Your task to perform on an android device: toggle improve location accuracy Image 0: 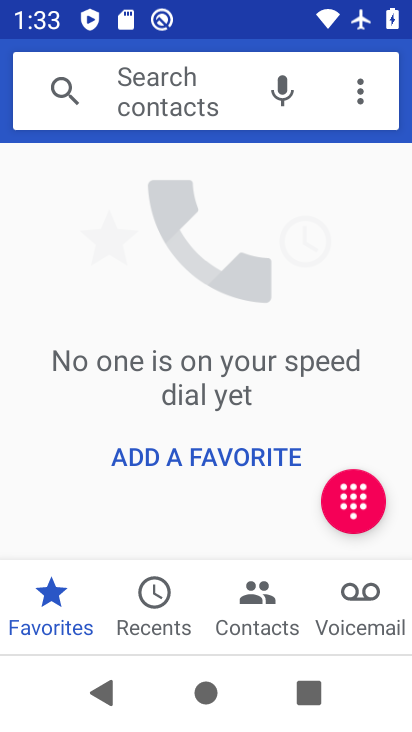
Step 0: press home button
Your task to perform on an android device: toggle improve location accuracy Image 1: 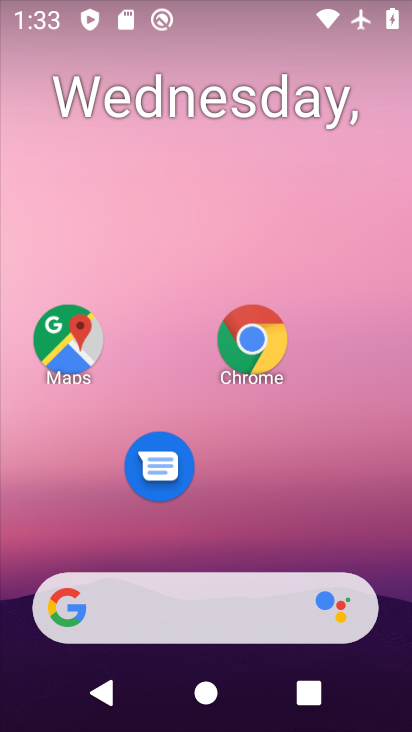
Step 1: drag from (149, 620) to (261, 200)
Your task to perform on an android device: toggle improve location accuracy Image 2: 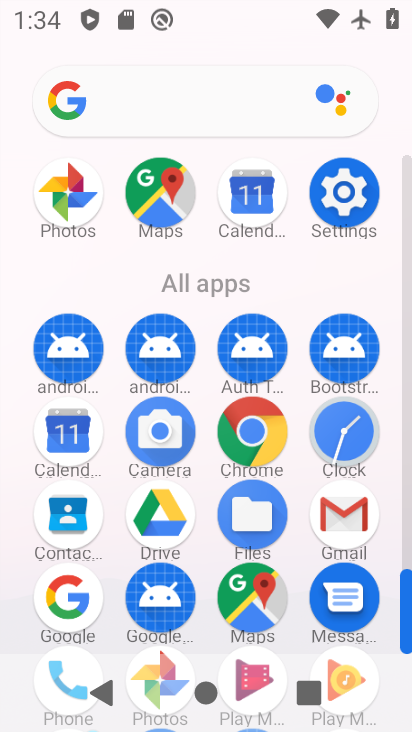
Step 2: click (341, 199)
Your task to perform on an android device: toggle improve location accuracy Image 3: 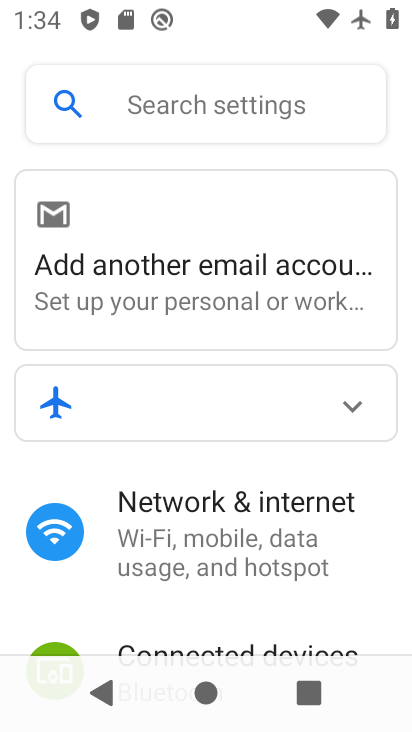
Step 3: drag from (203, 625) to (359, 156)
Your task to perform on an android device: toggle improve location accuracy Image 4: 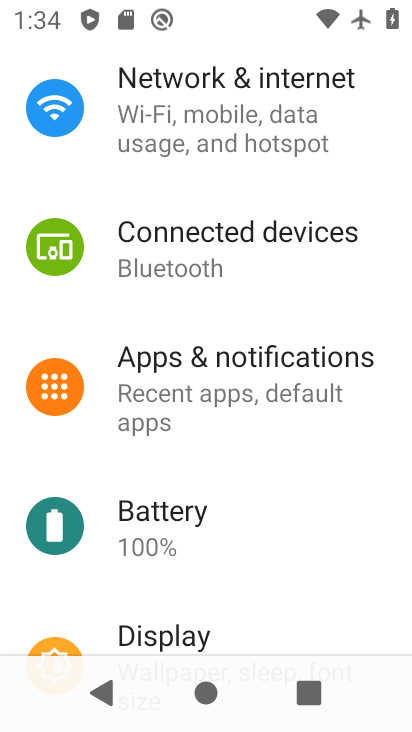
Step 4: drag from (235, 594) to (375, 57)
Your task to perform on an android device: toggle improve location accuracy Image 5: 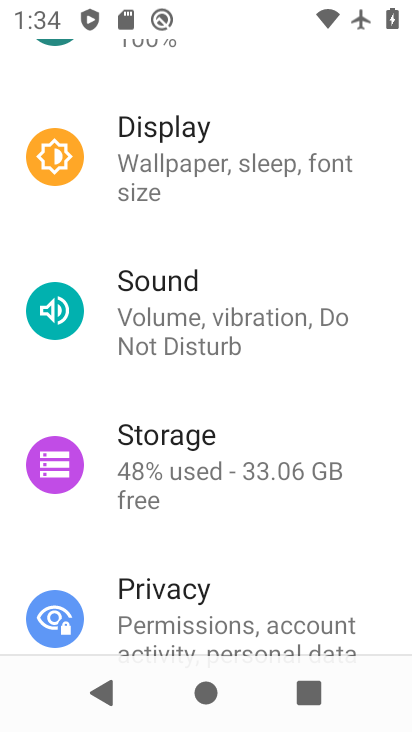
Step 5: drag from (261, 490) to (357, 113)
Your task to perform on an android device: toggle improve location accuracy Image 6: 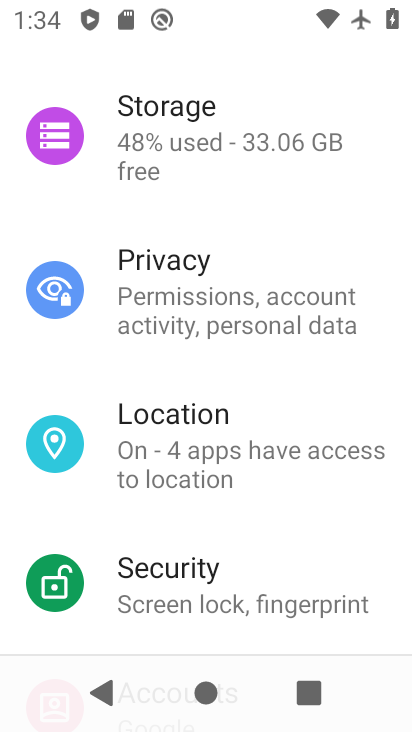
Step 6: click (203, 434)
Your task to perform on an android device: toggle improve location accuracy Image 7: 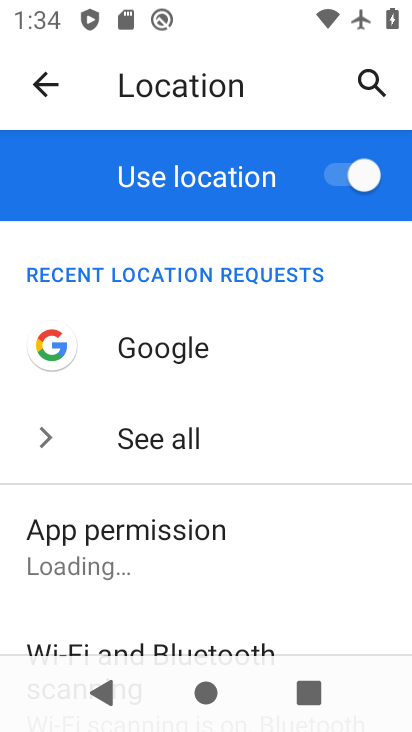
Step 7: drag from (252, 579) to (365, 211)
Your task to perform on an android device: toggle improve location accuracy Image 8: 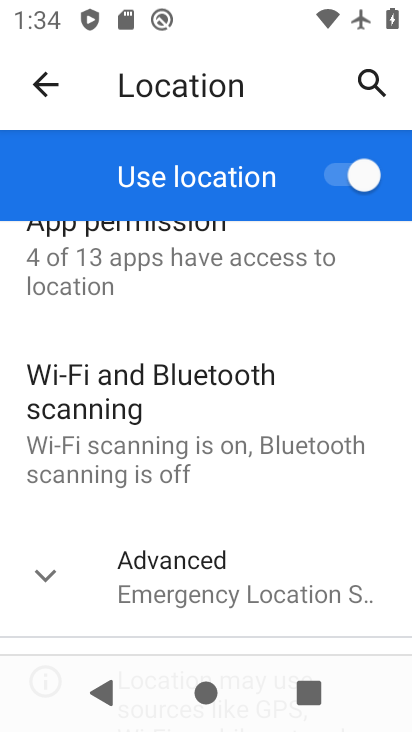
Step 8: drag from (255, 527) to (348, 102)
Your task to perform on an android device: toggle improve location accuracy Image 9: 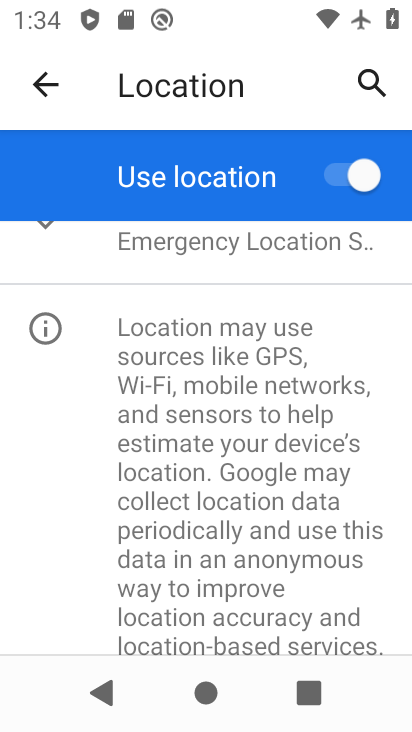
Step 9: drag from (220, 335) to (169, 517)
Your task to perform on an android device: toggle improve location accuracy Image 10: 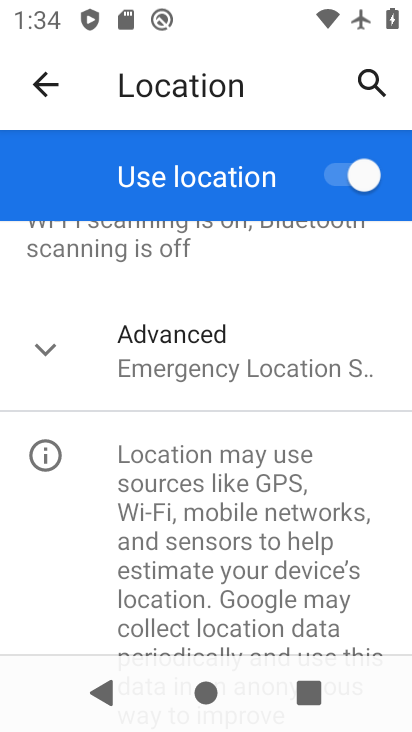
Step 10: click (162, 344)
Your task to perform on an android device: toggle improve location accuracy Image 11: 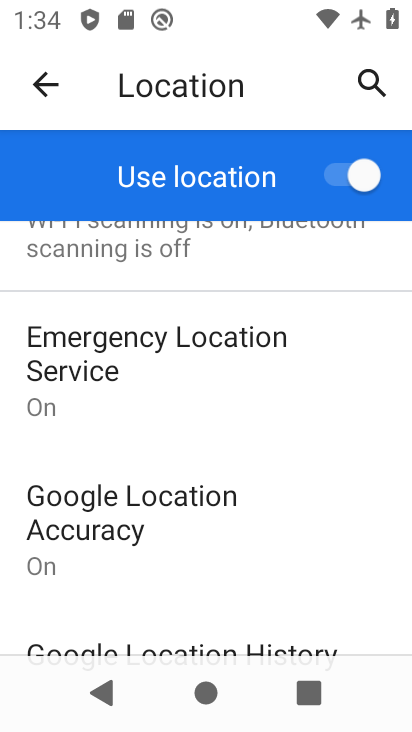
Step 11: click (119, 518)
Your task to perform on an android device: toggle improve location accuracy Image 12: 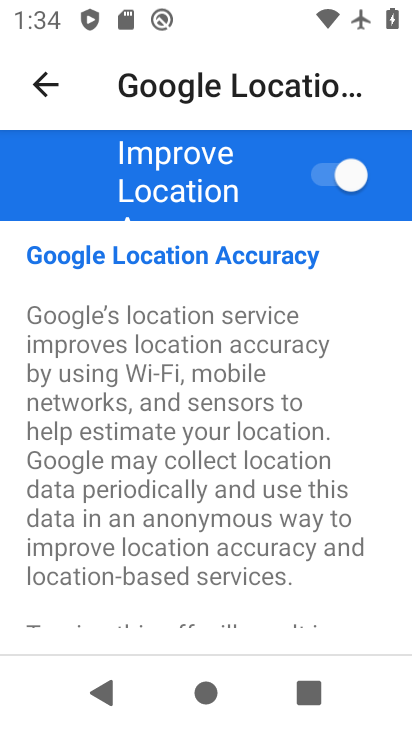
Step 12: click (324, 173)
Your task to perform on an android device: toggle improve location accuracy Image 13: 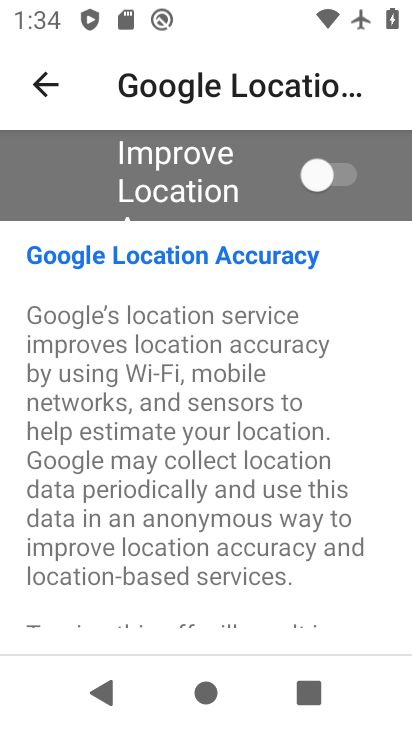
Step 13: task complete